Your task to perform on an android device: turn off sleep mode Image 0: 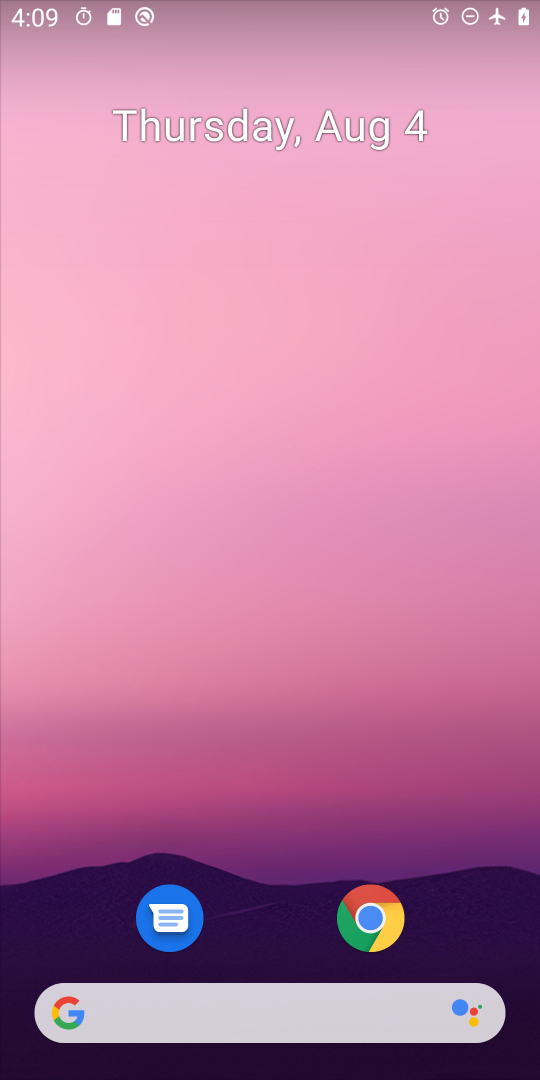
Step 0: drag from (266, 905) to (271, 252)
Your task to perform on an android device: turn off sleep mode Image 1: 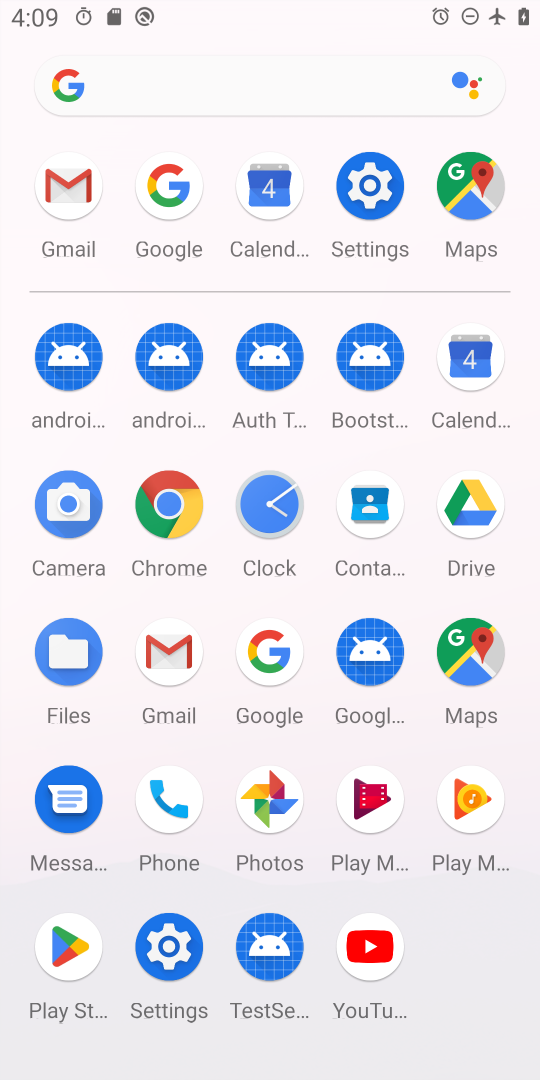
Step 1: click (350, 204)
Your task to perform on an android device: turn off sleep mode Image 2: 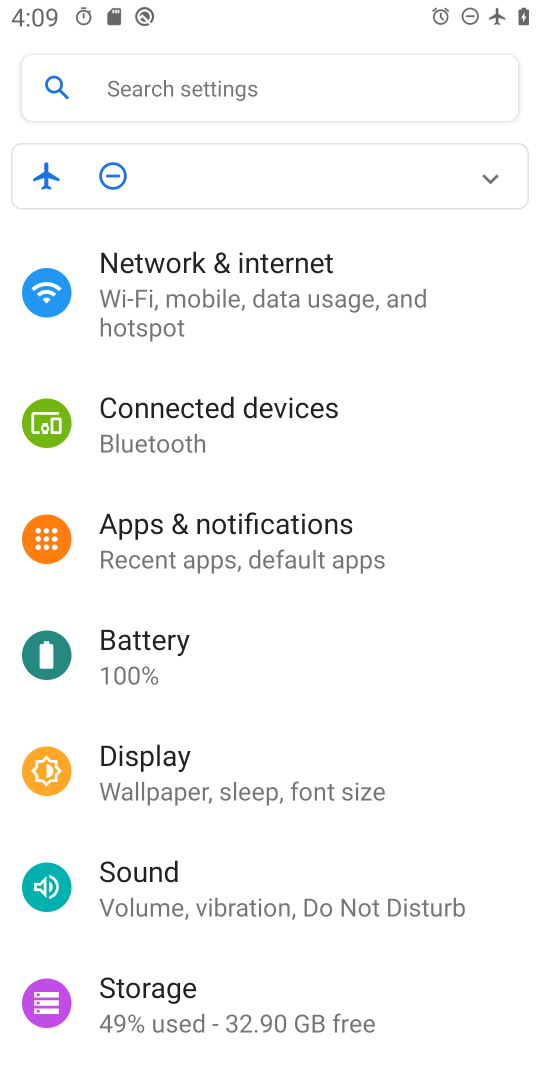
Step 2: click (208, 803)
Your task to perform on an android device: turn off sleep mode Image 3: 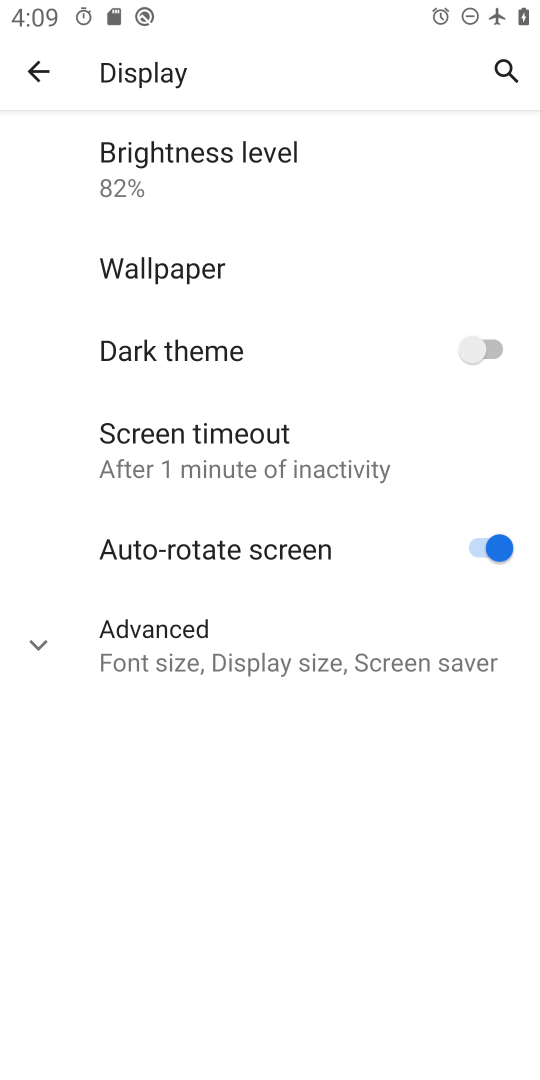
Step 3: click (234, 478)
Your task to perform on an android device: turn off sleep mode Image 4: 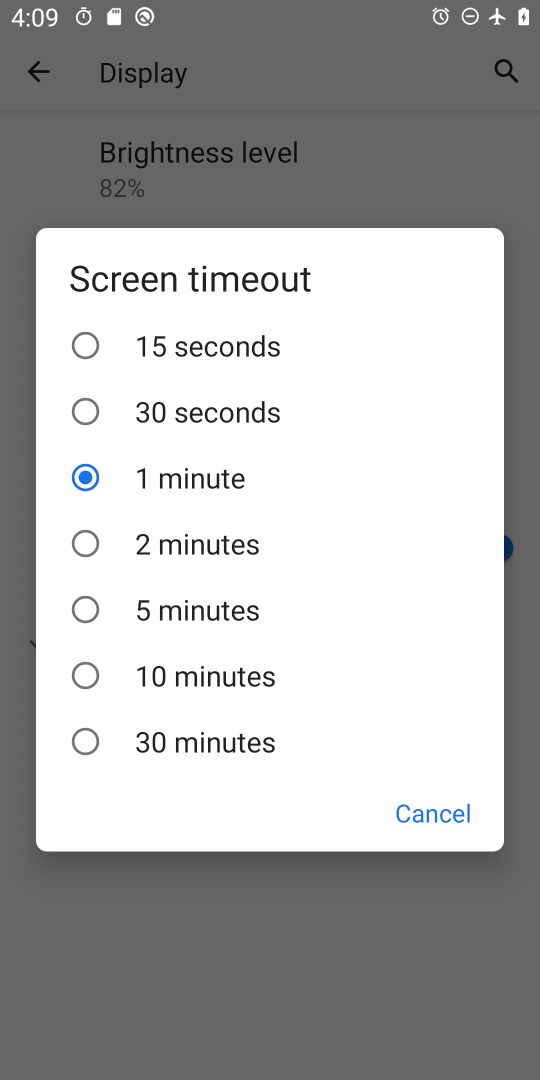
Step 4: click (258, 659)
Your task to perform on an android device: turn off sleep mode Image 5: 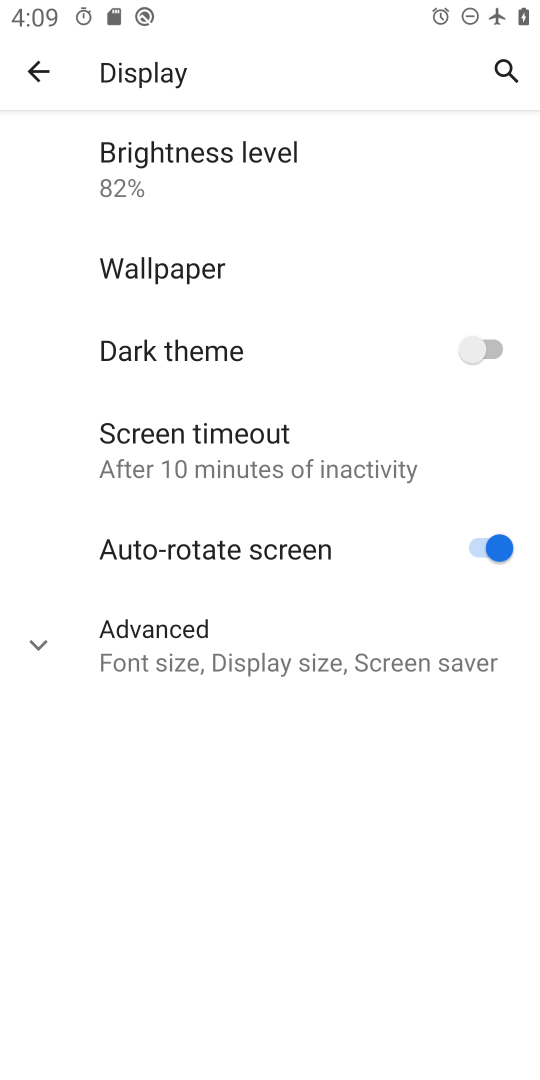
Step 5: task complete